Your task to perform on an android device: clear all cookies in the chrome app Image 0: 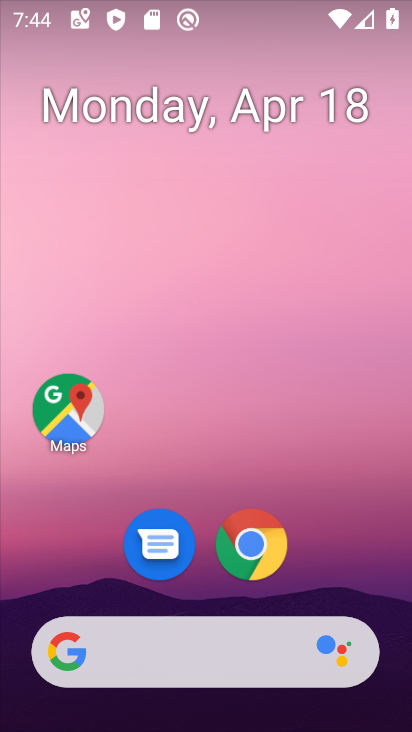
Step 0: click (249, 547)
Your task to perform on an android device: clear all cookies in the chrome app Image 1: 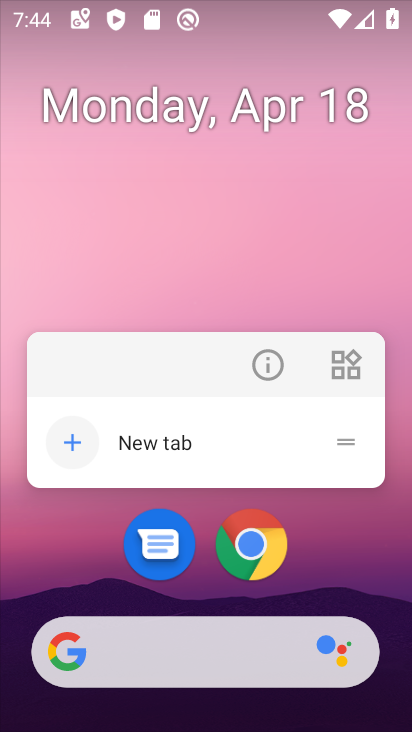
Step 1: click (251, 540)
Your task to perform on an android device: clear all cookies in the chrome app Image 2: 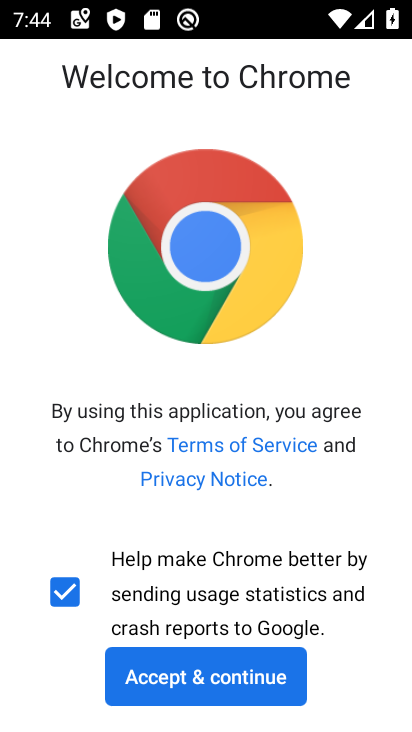
Step 2: click (167, 678)
Your task to perform on an android device: clear all cookies in the chrome app Image 3: 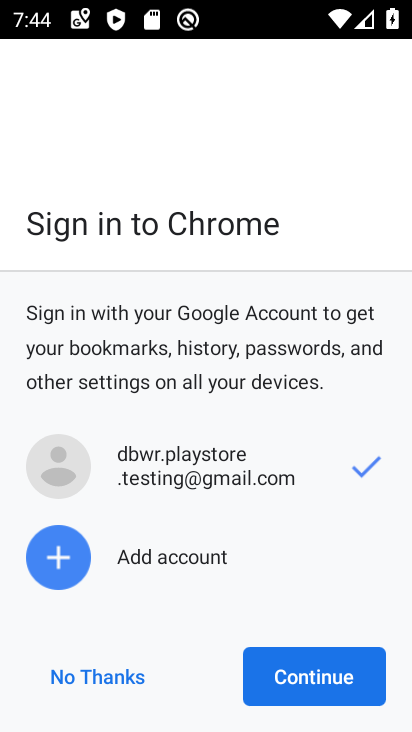
Step 3: click (44, 680)
Your task to perform on an android device: clear all cookies in the chrome app Image 4: 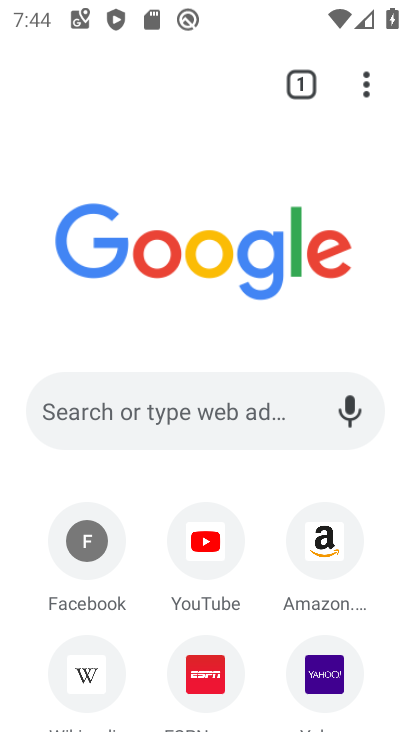
Step 4: click (368, 87)
Your task to perform on an android device: clear all cookies in the chrome app Image 5: 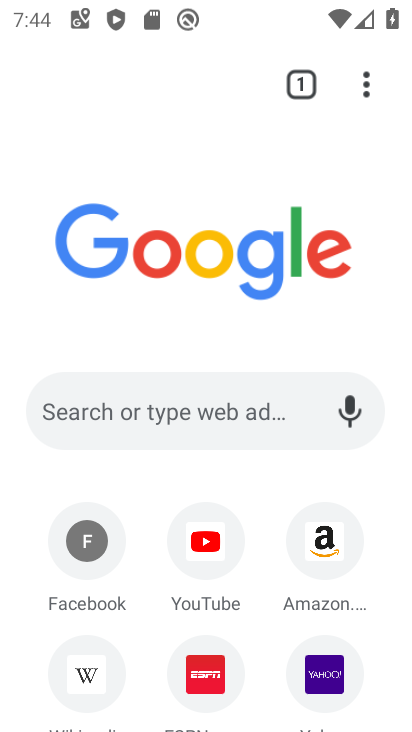
Step 5: click (365, 86)
Your task to perform on an android device: clear all cookies in the chrome app Image 6: 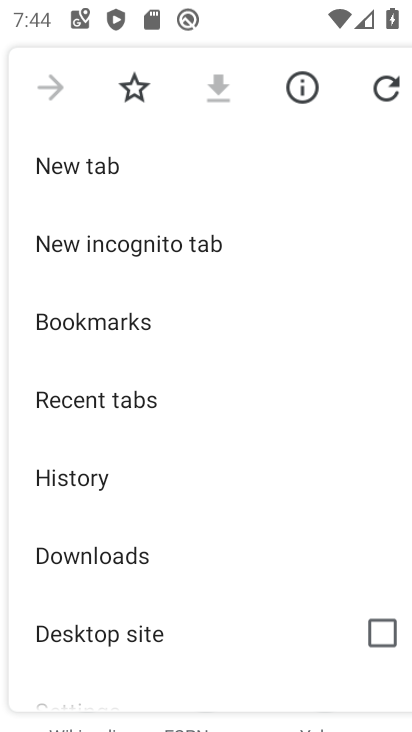
Step 6: drag from (223, 639) to (246, 199)
Your task to perform on an android device: clear all cookies in the chrome app Image 7: 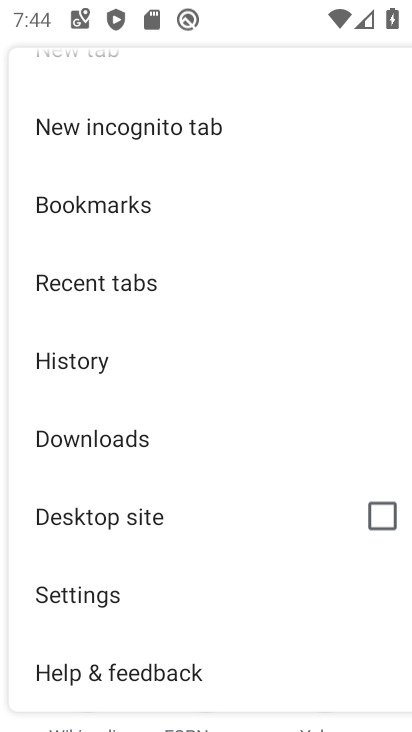
Step 7: click (96, 591)
Your task to perform on an android device: clear all cookies in the chrome app Image 8: 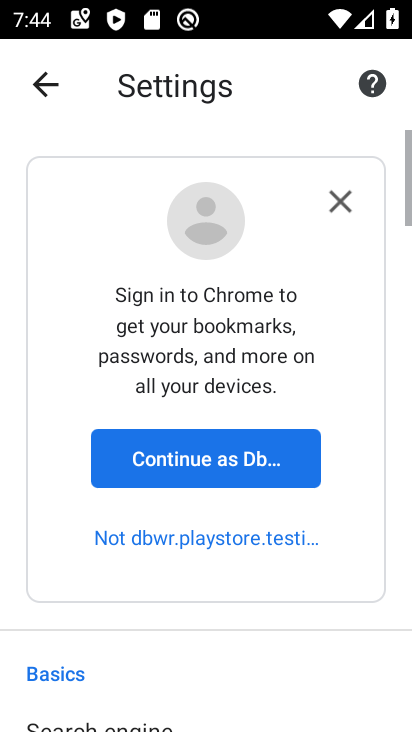
Step 8: drag from (333, 628) to (316, 106)
Your task to perform on an android device: clear all cookies in the chrome app Image 9: 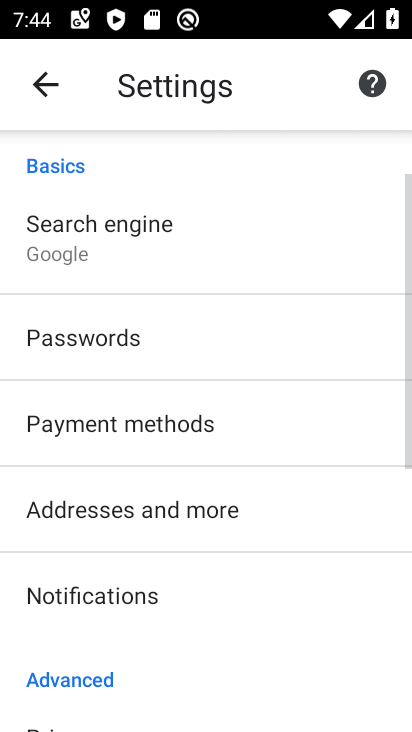
Step 9: drag from (230, 566) to (225, 145)
Your task to perform on an android device: clear all cookies in the chrome app Image 10: 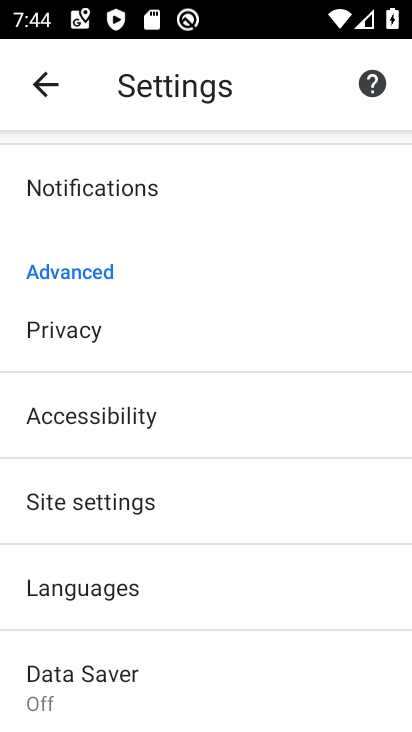
Step 10: click (56, 334)
Your task to perform on an android device: clear all cookies in the chrome app Image 11: 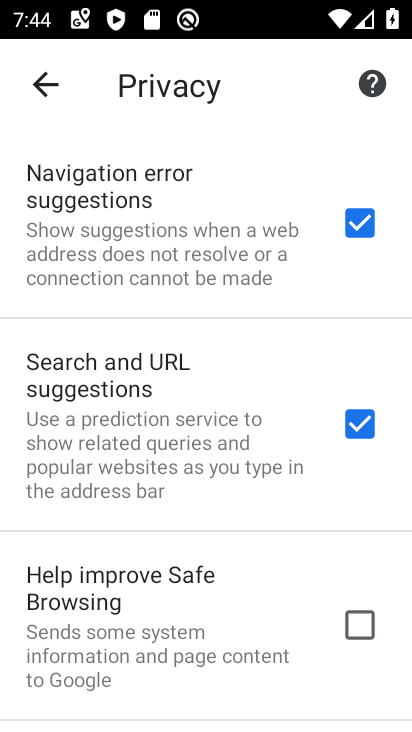
Step 11: drag from (160, 615) to (166, 130)
Your task to perform on an android device: clear all cookies in the chrome app Image 12: 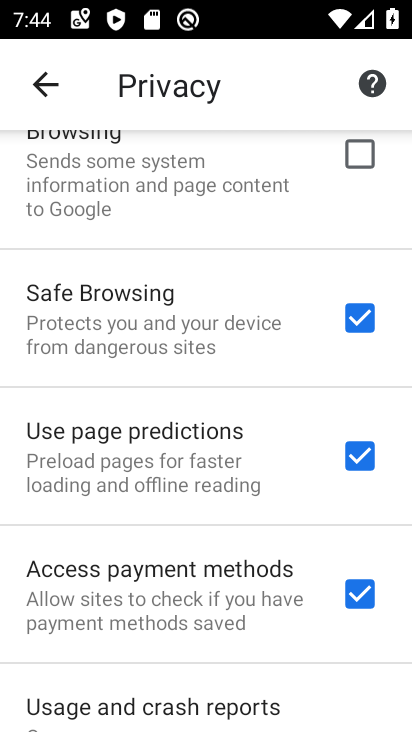
Step 12: drag from (167, 538) to (157, 154)
Your task to perform on an android device: clear all cookies in the chrome app Image 13: 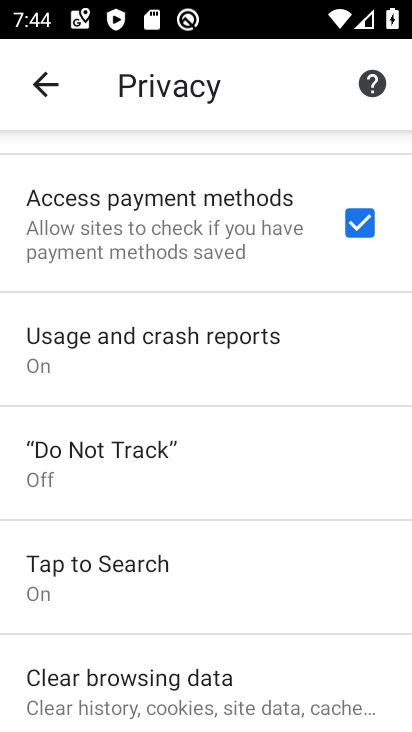
Step 13: drag from (164, 516) to (164, 230)
Your task to perform on an android device: clear all cookies in the chrome app Image 14: 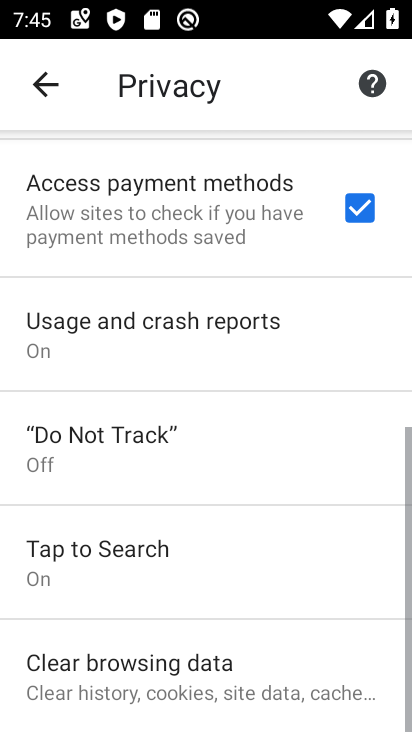
Step 14: click (121, 673)
Your task to perform on an android device: clear all cookies in the chrome app Image 15: 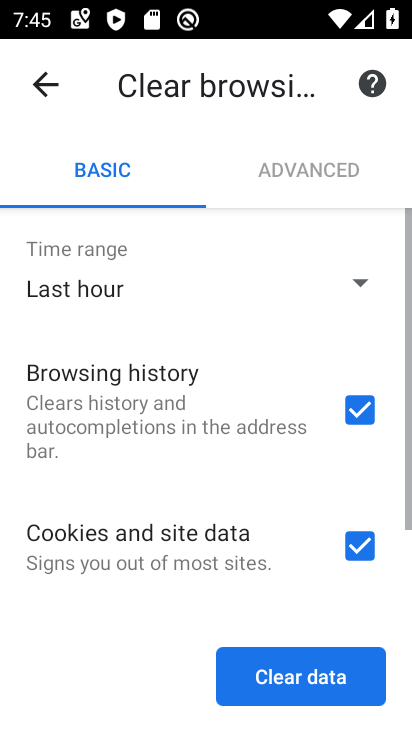
Step 15: click (349, 406)
Your task to perform on an android device: clear all cookies in the chrome app Image 16: 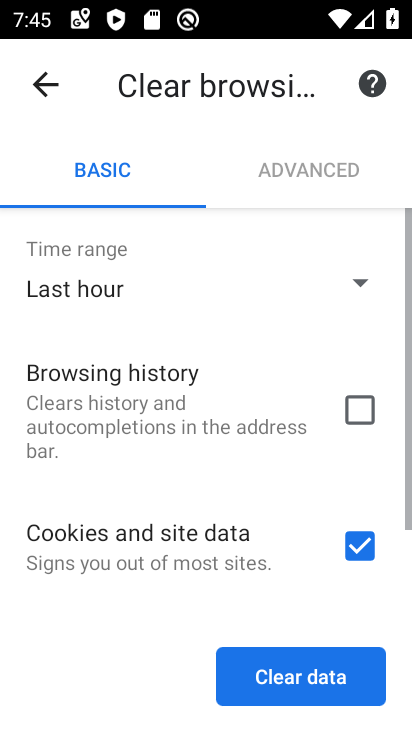
Step 16: drag from (108, 498) to (117, 259)
Your task to perform on an android device: clear all cookies in the chrome app Image 17: 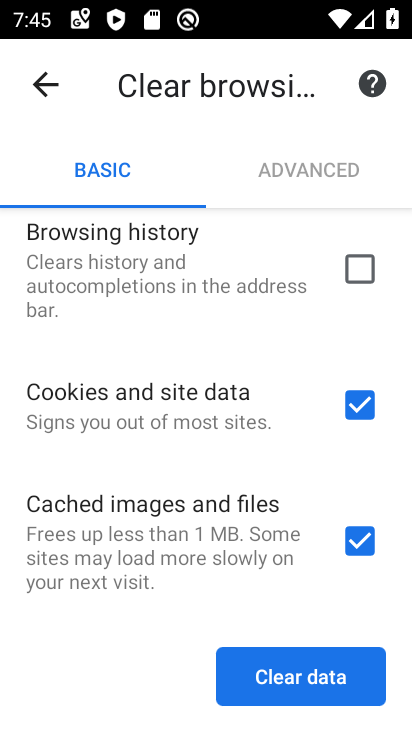
Step 17: click (363, 533)
Your task to perform on an android device: clear all cookies in the chrome app Image 18: 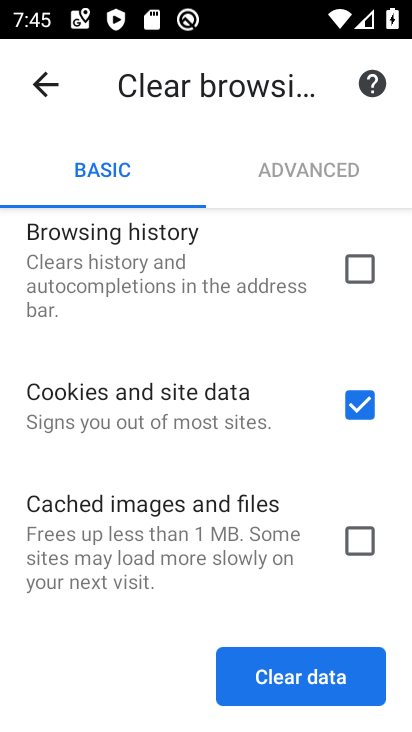
Step 18: click (296, 678)
Your task to perform on an android device: clear all cookies in the chrome app Image 19: 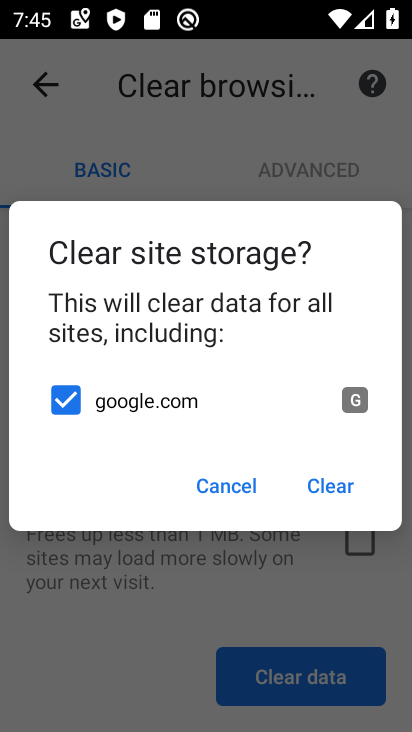
Step 19: click (322, 495)
Your task to perform on an android device: clear all cookies in the chrome app Image 20: 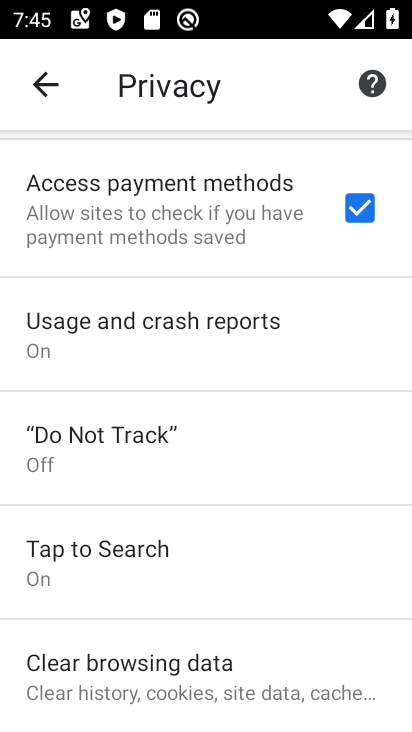
Step 20: task complete